Your task to perform on an android device: turn pop-ups on in chrome Image 0: 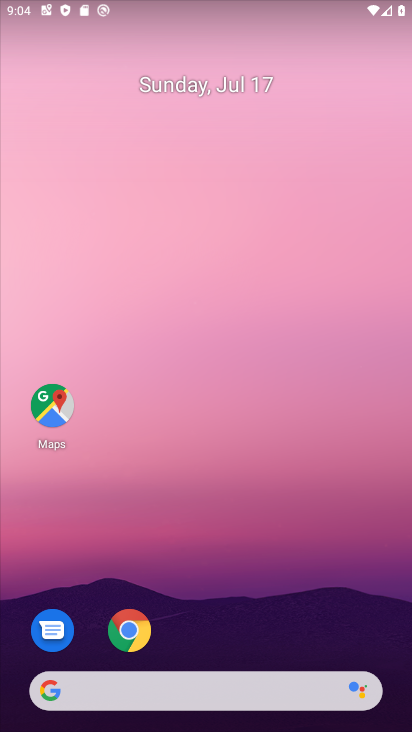
Step 0: drag from (300, 672) to (322, 44)
Your task to perform on an android device: turn pop-ups on in chrome Image 1: 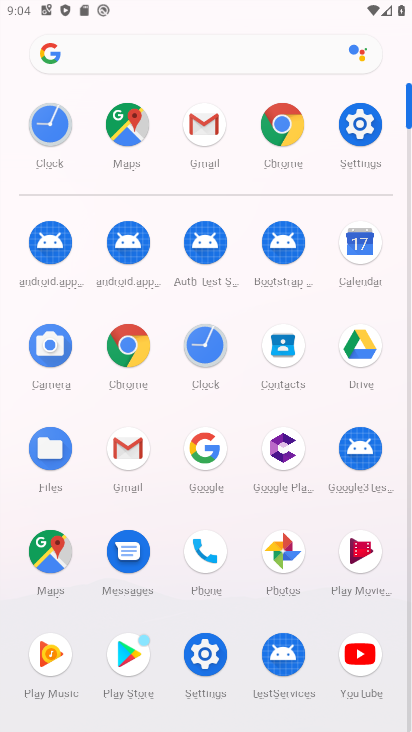
Step 1: click (141, 351)
Your task to perform on an android device: turn pop-ups on in chrome Image 2: 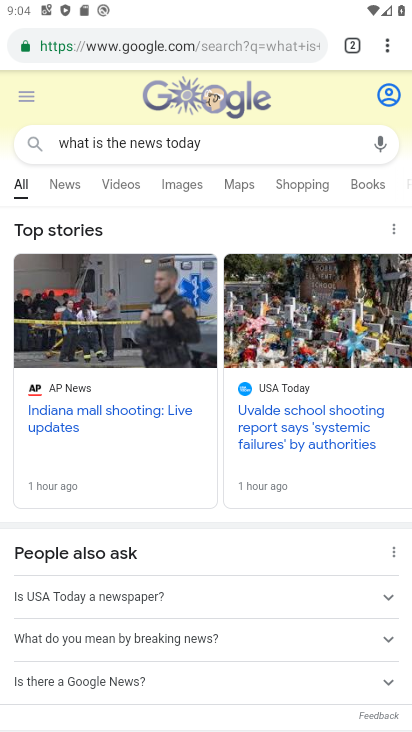
Step 2: click (395, 42)
Your task to perform on an android device: turn pop-ups on in chrome Image 3: 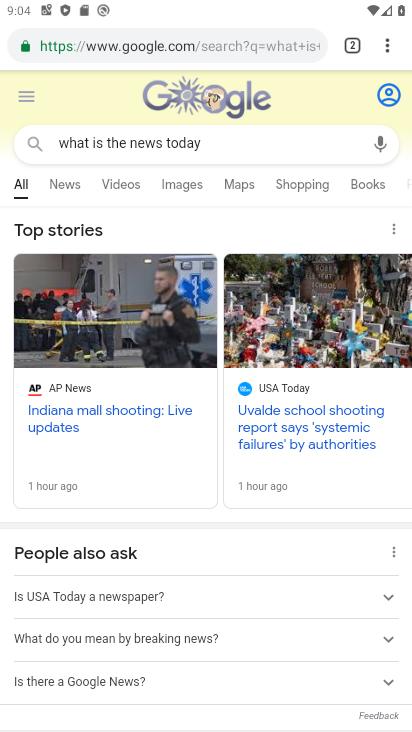
Step 3: drag from (386, 46) to (235, 504)
Your task to perform on an android device: turn pop-ups on in chrome Image 4: 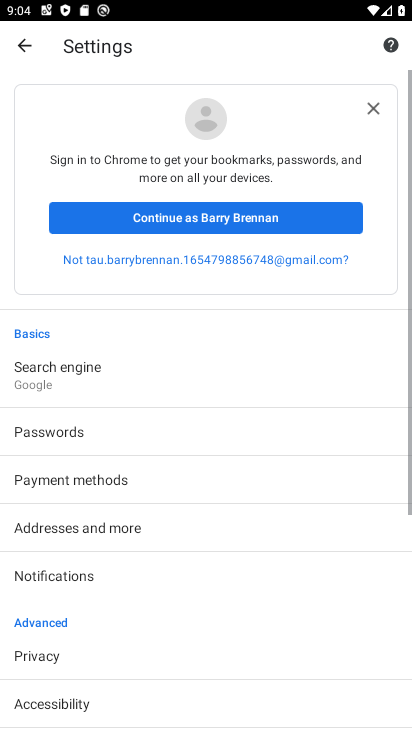
Step 4: drag from (136, 658) to (133, 249)
Your task to perform on an android device: turn pop-ups on in chrome Image 5: 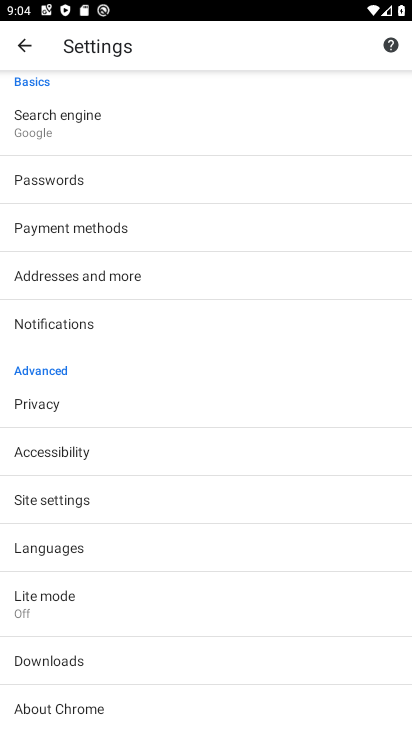
Step 5: click (88, 496)
Your task to perform on an android device: turn pop-ups on in chrome Image 6: 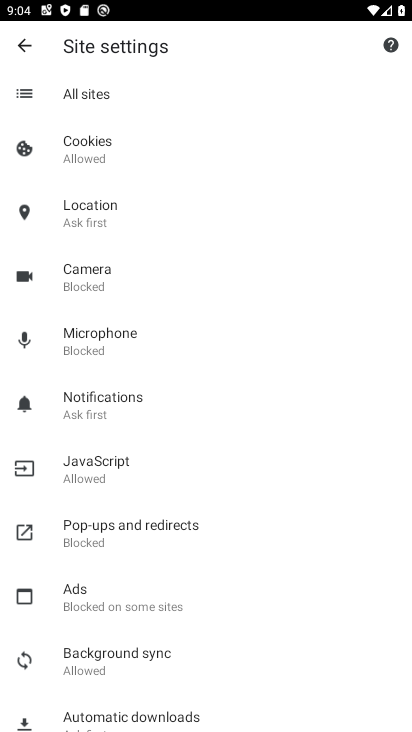
Step 6: click (141, 533)
Your task to perform on an android device: turn pop-ups on in chrome Image 7: 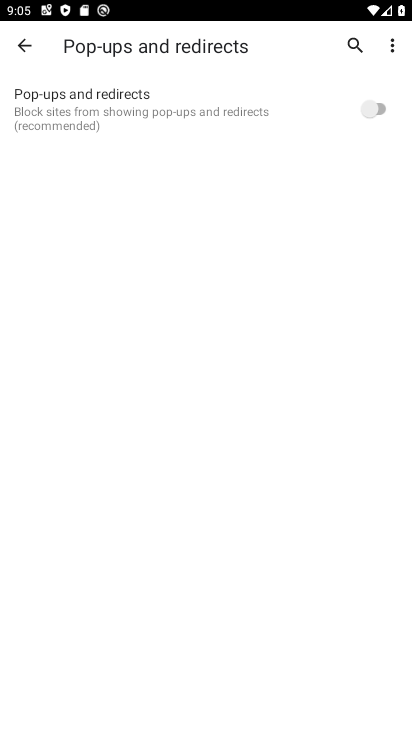
Step 7: click (380, 108)
Your task to perform on an android device: turn pop-ups on in chrome Image 8: 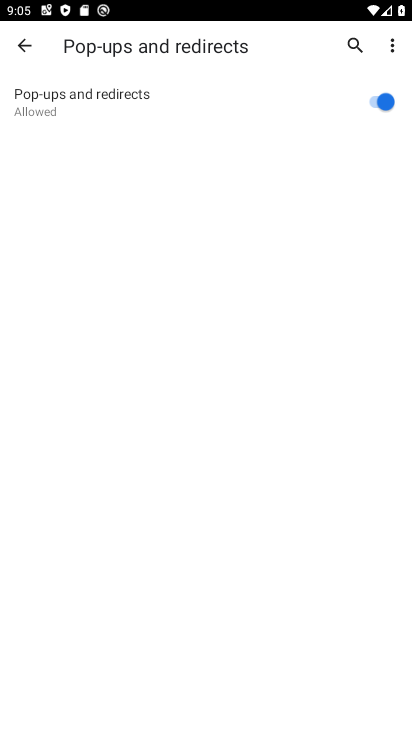
Step 8: task complete